Your task to perform on an android device: Open Google Image 0: 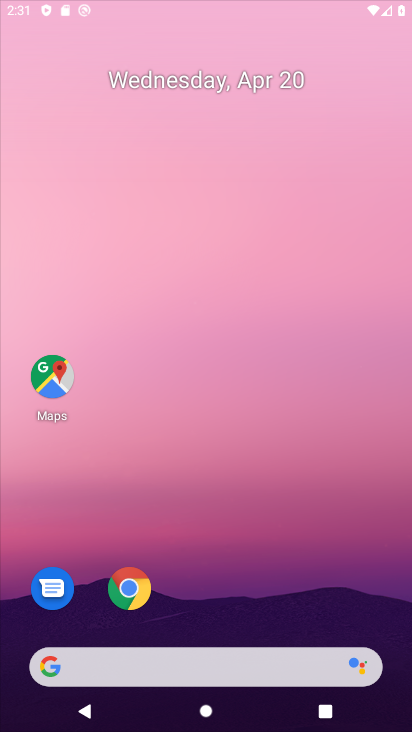
Step 0: drag from (273, 314) to (253, 108)
Your task to perform on an android device: Open Google Image 1: 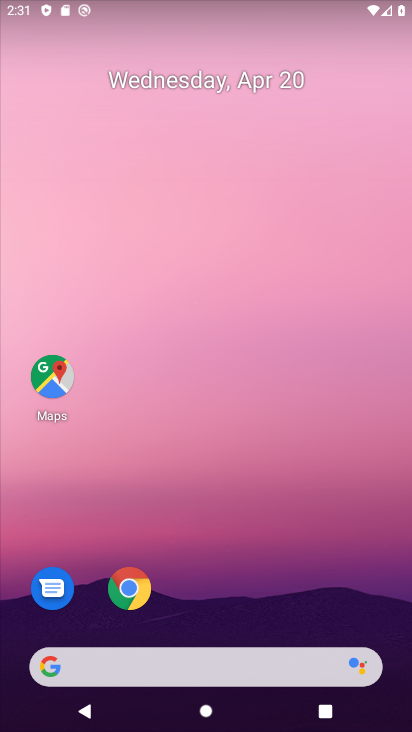
Step 1: drag from (223, 603) to (199, 213)
Your task to perform on an android device: Open Google Image 2: 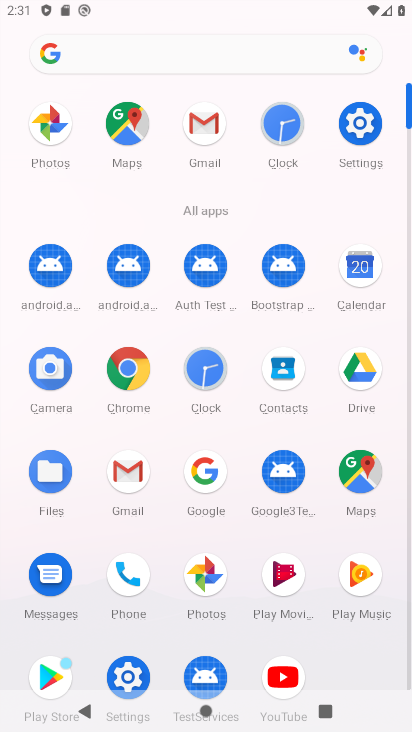
Step 2: click (130, 358)
Your task to perform on an android device: Open Google Image 3: 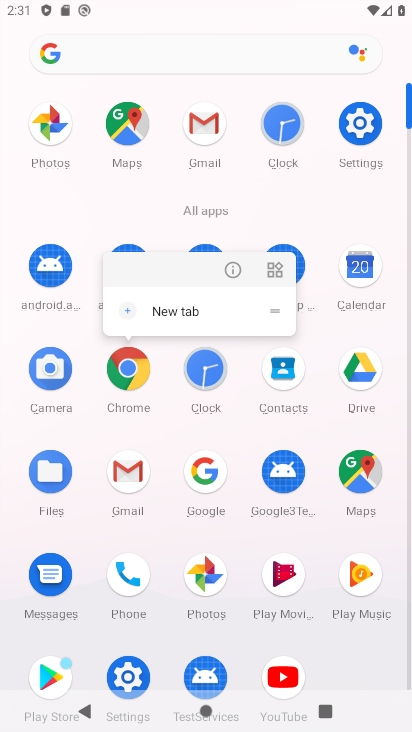
Step 3: click (130, 358)
Your task to perform on an android device: Open Google Image 4: 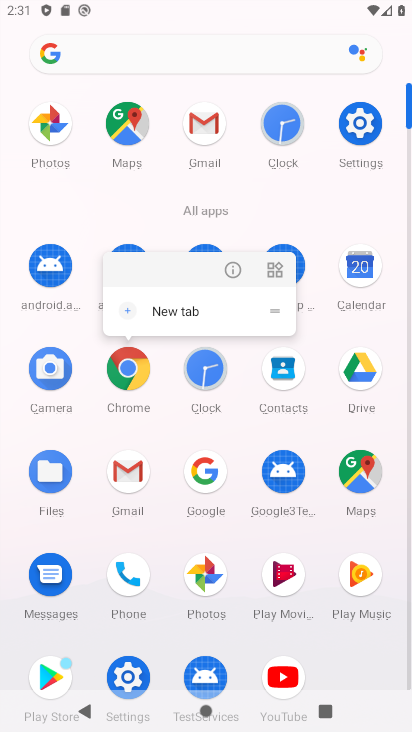
Step 4: click (121, 373)
Your task to perform on an android device: Open Google Image 5: 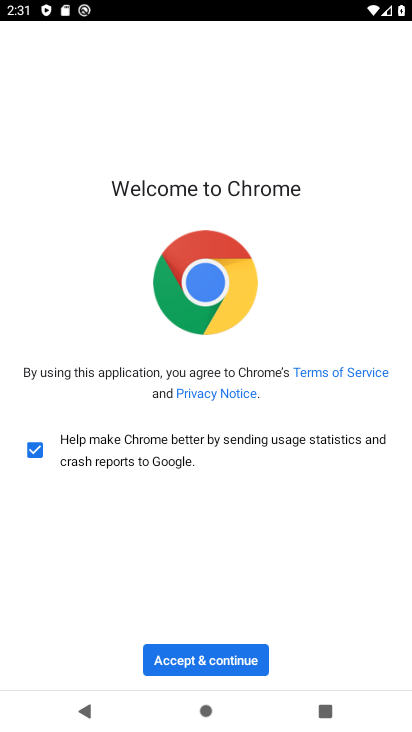
Step 5: click (245, 654)
Your task to perform on an android device: Open Google Image 6: 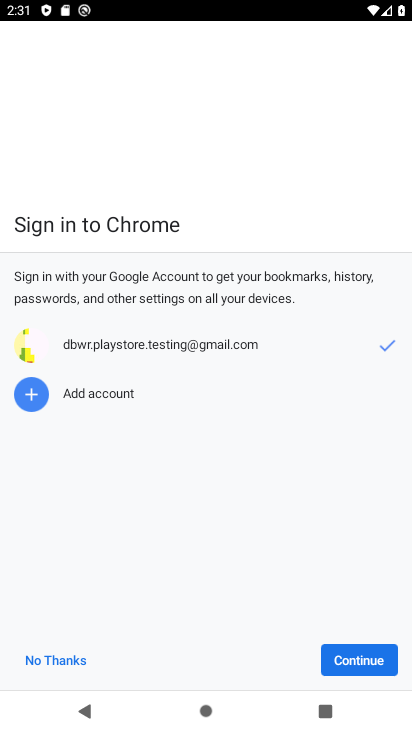
Step 6: click (60, 659)
Your task to perform on an android device: Open Google Image 7: 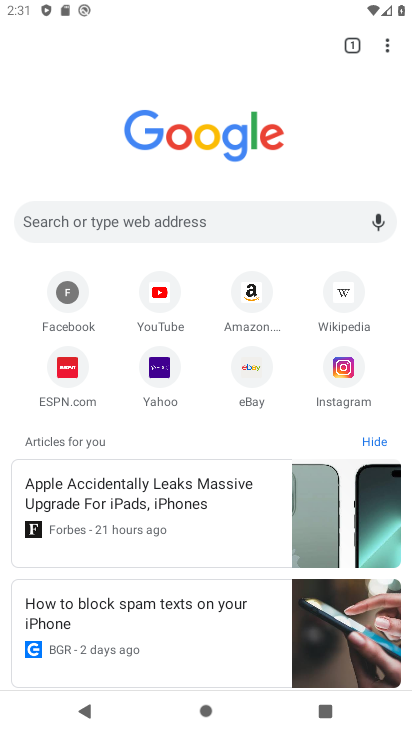
Step 7: task complete